Your task to perform on an android device: Go to settings Image 0: 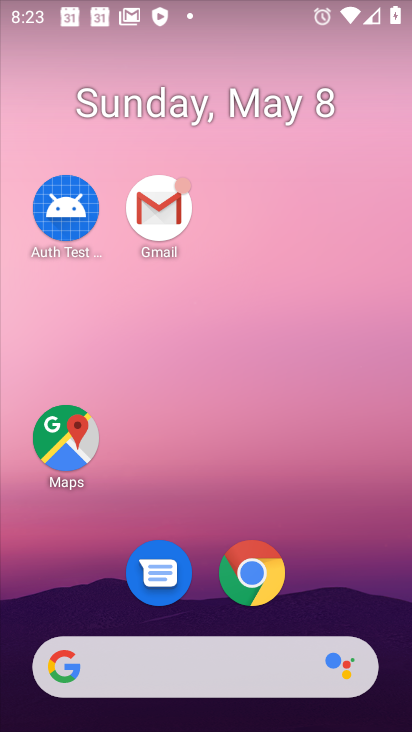
Step 0: drag from (366, 594) to (228, 39)
Your task to perform on an android device: Go to settings Image 1: 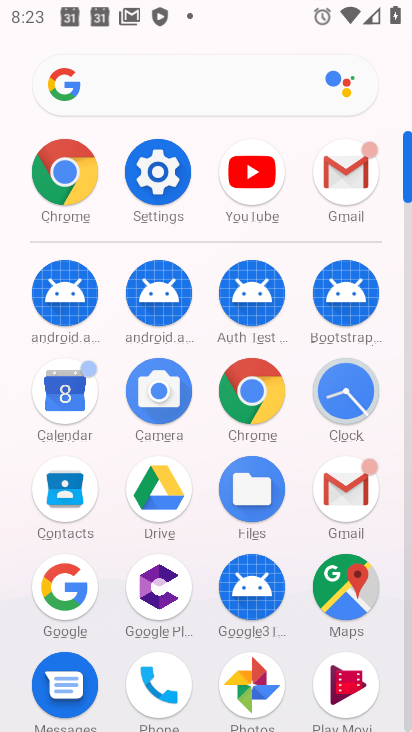
Step 1: click (160, 175)
Your task to perform on an android device: Go to settings Image 2: 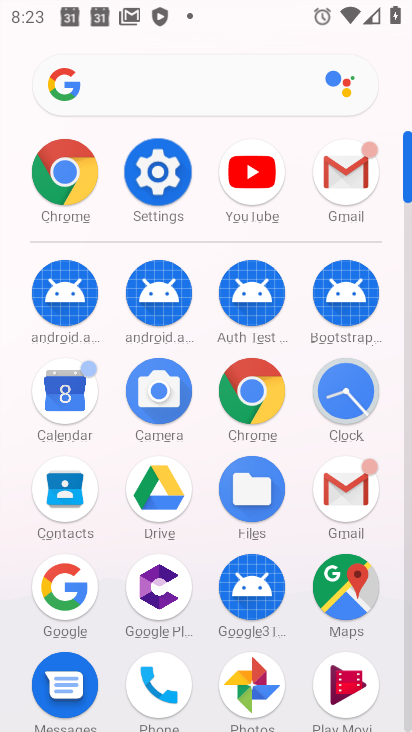
Step 2: click (160, 175)
Your task to perform on an android device: Go to settings Image 3: 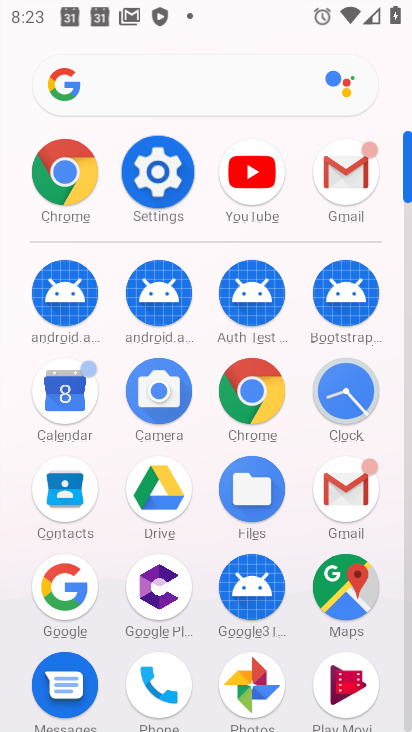
Step 3: click (160, 175)
Your task to perform on an android device: Go to settings Image 4: 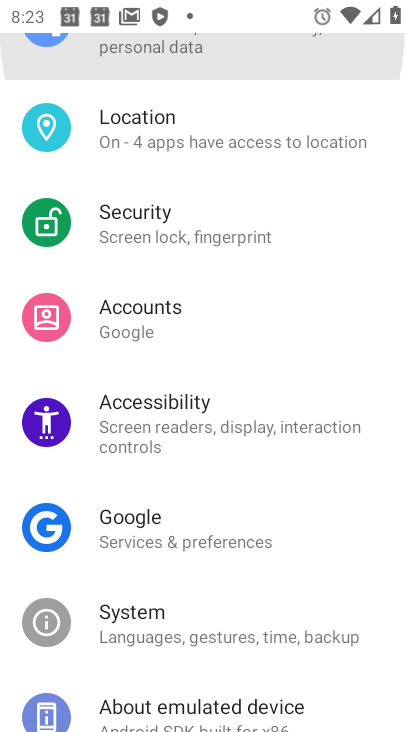
Step 4: click (161, 175)
Your task to perform on an android device: Go to settings Image 5: 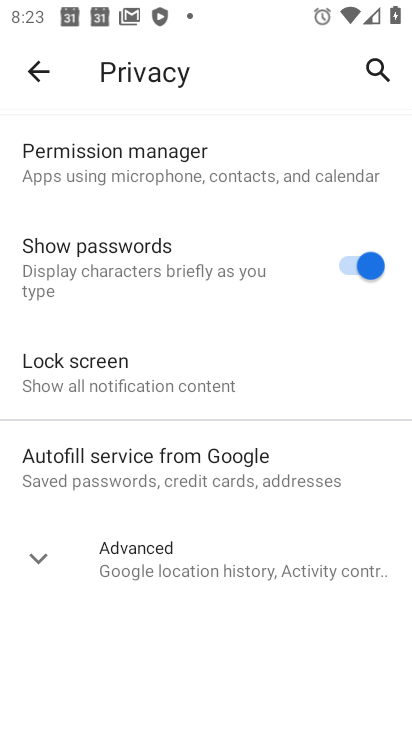
Step 5: click (35, 71)
Your task to perform on an android device: Go to settings Image 6: 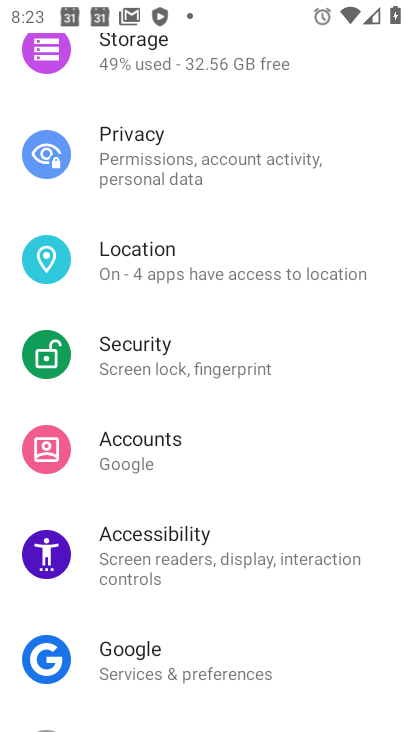
Step 6: task complete